Your task to perform on an android device: Open accessibility settings Image 0: 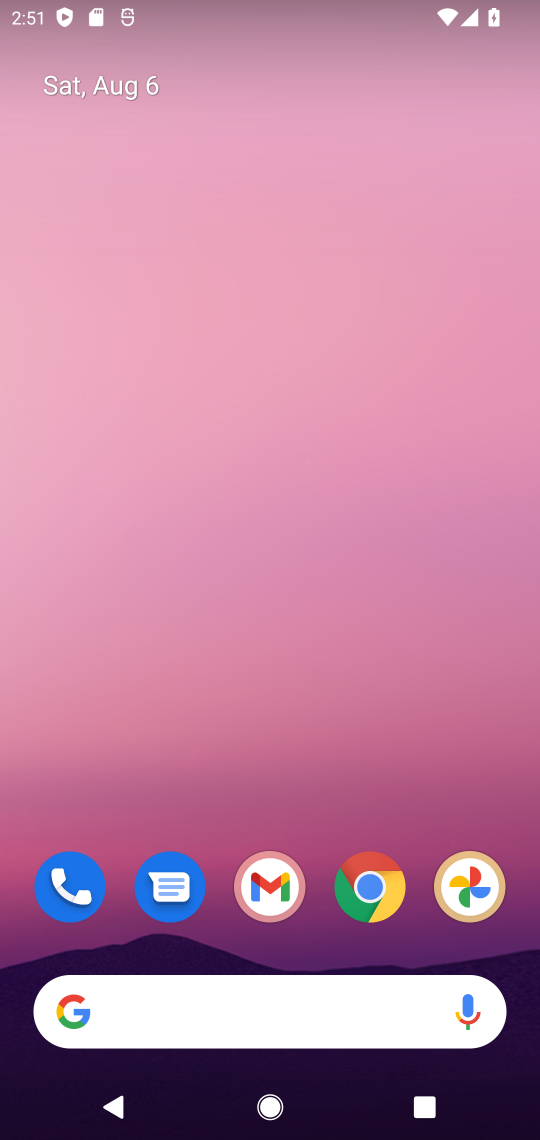
Step 0: drag from (353, 784) to (347, 271)
Your task to perform on an android device: Open accessibility settings Image 1: 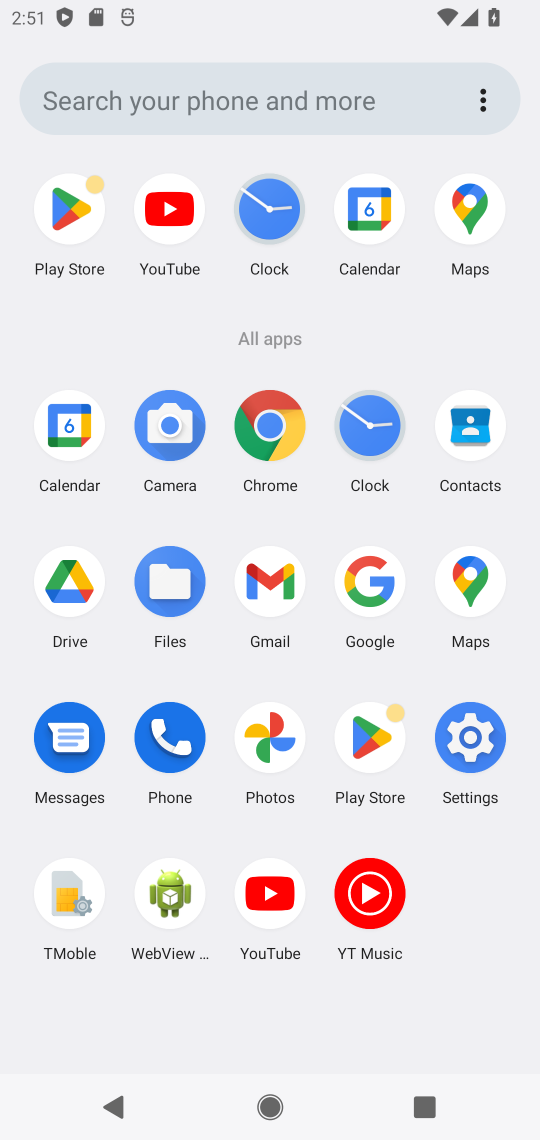
Step 1: click (470, 741)
Your task to perform on an android device: Open accessibility settings Image 2: 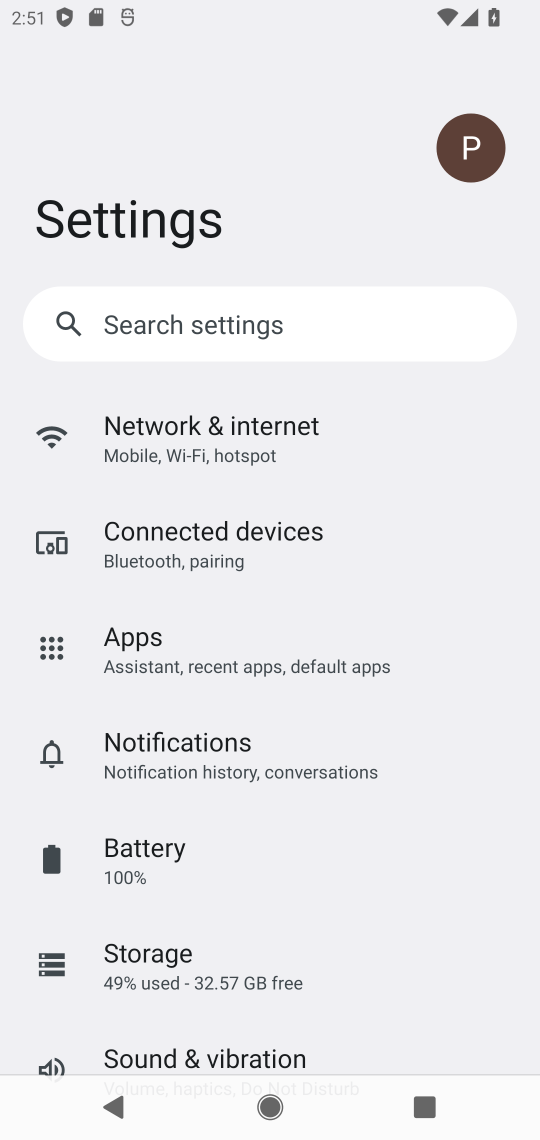
Step 2: drag from (466, 856) to (466, 719)
Your task to perform on an android device: Open accessibility settings Image 3: 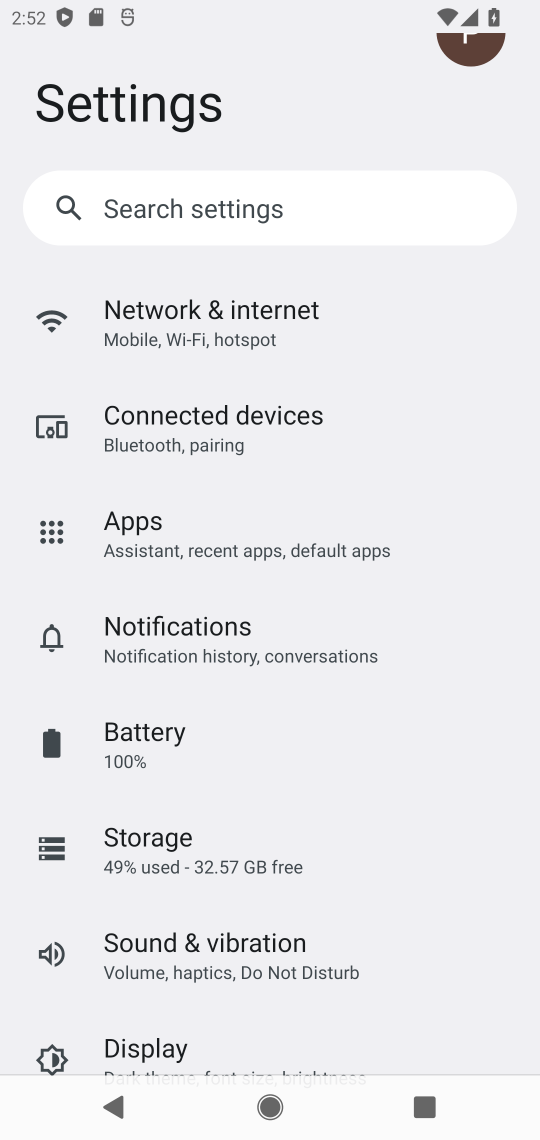
Step 3: drag from (468, 849) to (454, 726)
Your task to perform on an android device: Open accessibility settings Image 4: 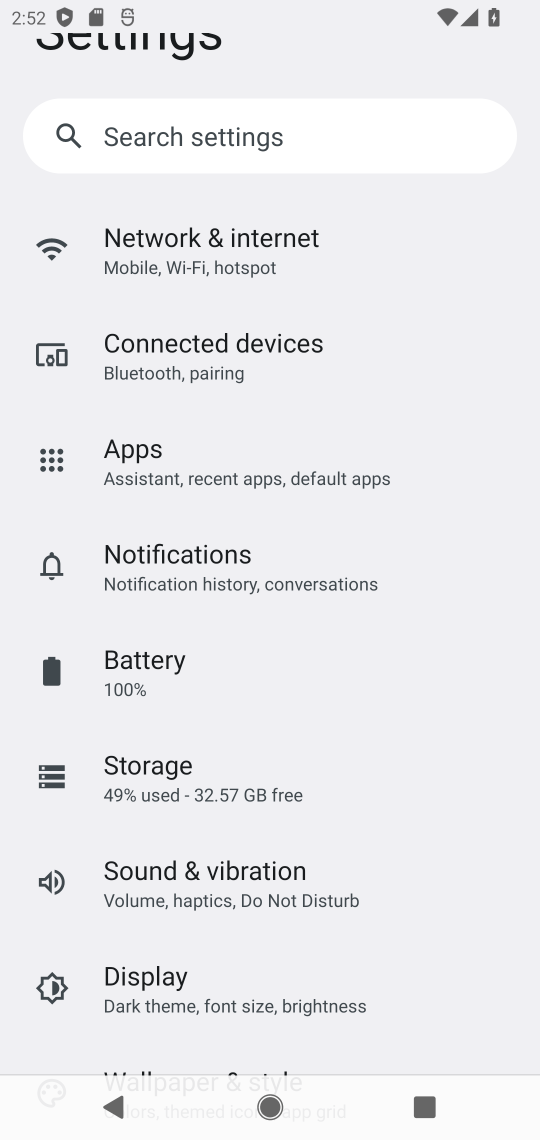
Step 4: drag from (448, 888) to (442, 750)
Your task to perform on an android device: Open accessibility settings Image 5: 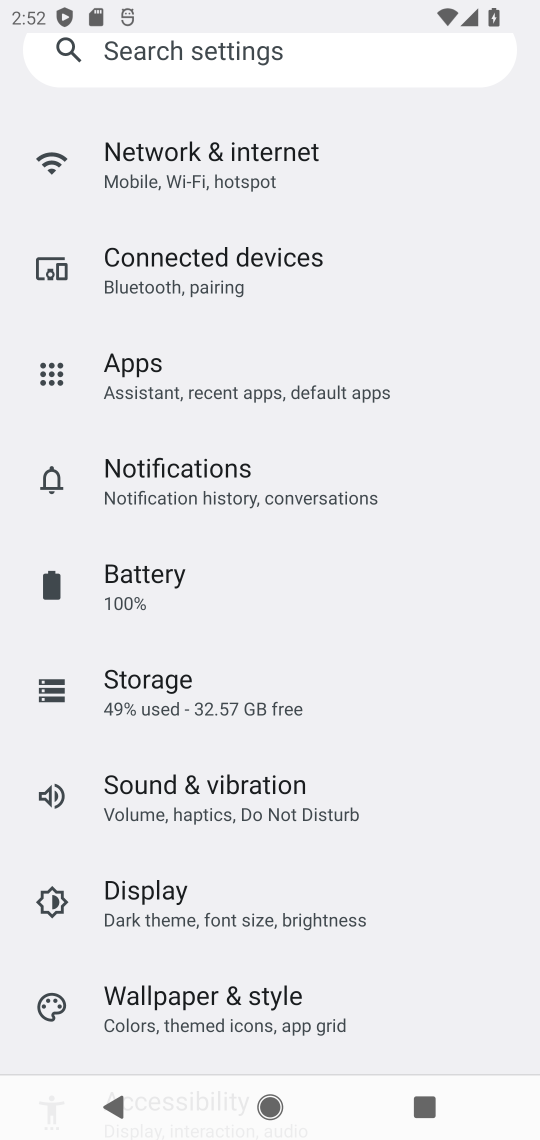
Step 5: drag from (455, 884) to (452, 735)
Your task to perform on an android device: Open accessibility settings Image 6: 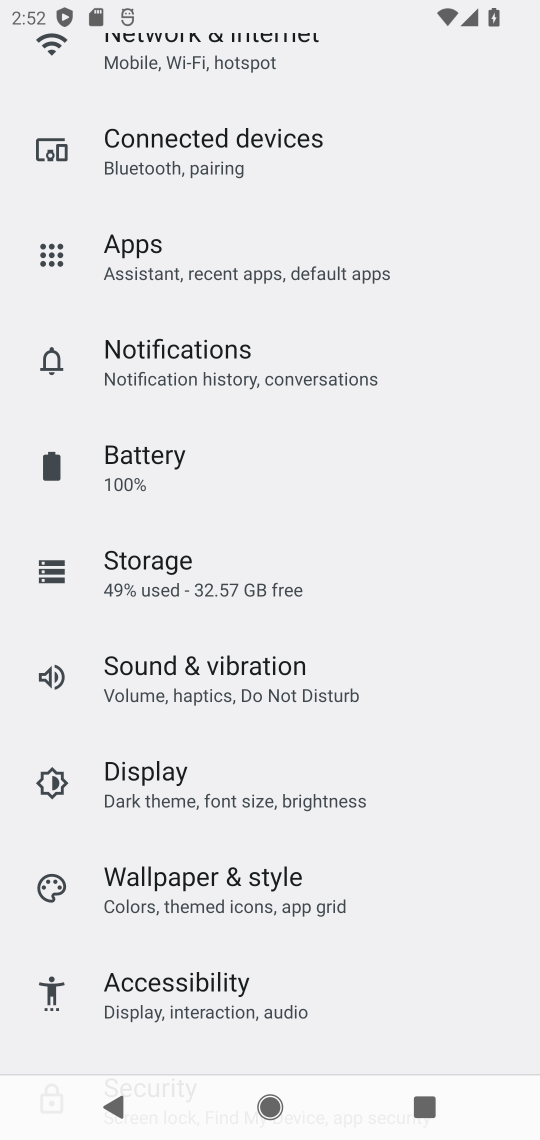
Step 6: drag from (461, 902) to (464, 751)
Your task to perform on an android device: Open accessibility settings Image 7: 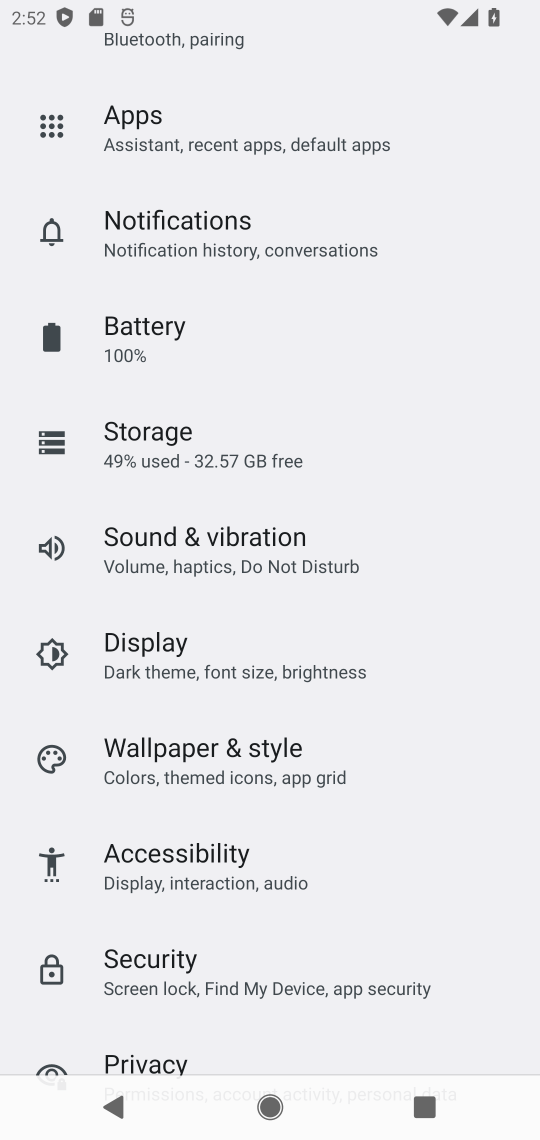
Step 7: drag from (462, 897) to (464, 704)
Your task to perform on an android device: Open accessibility settings Image 8: 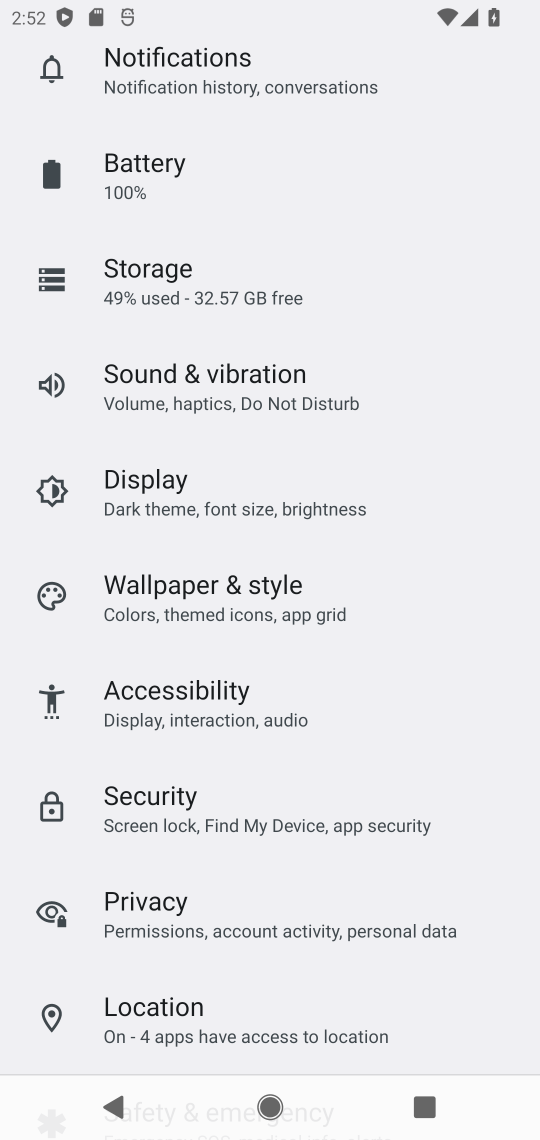
Step 8: drag from (482, 882) to (500, 639)
Your task to perform on an android device: Open accessibility settings Image 9: 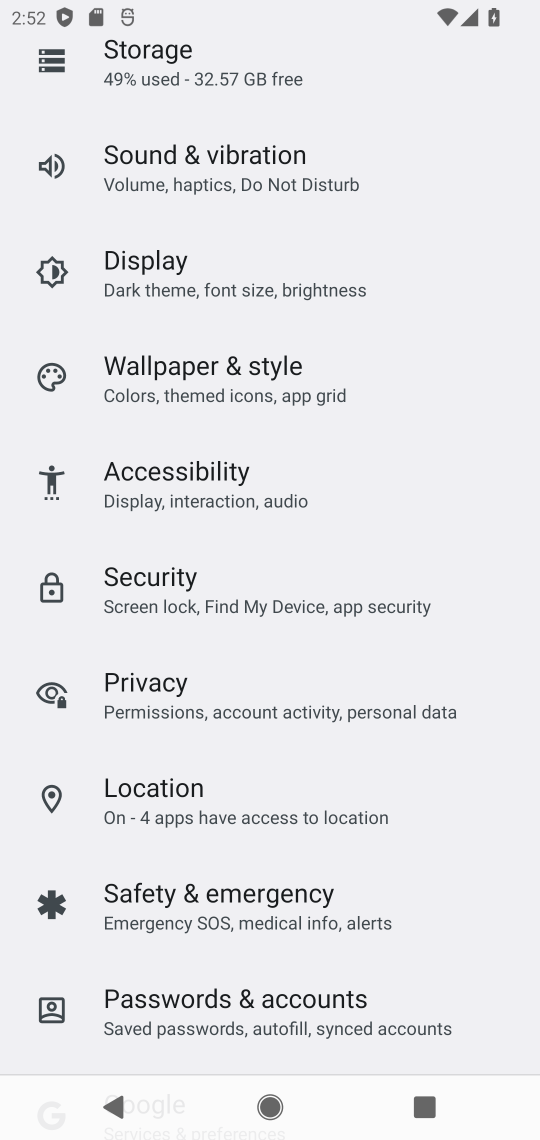
Step 9: drag from (500, 887) to (502, 650)
Your task to perform on an android device: Open accessibility settings Image 10: 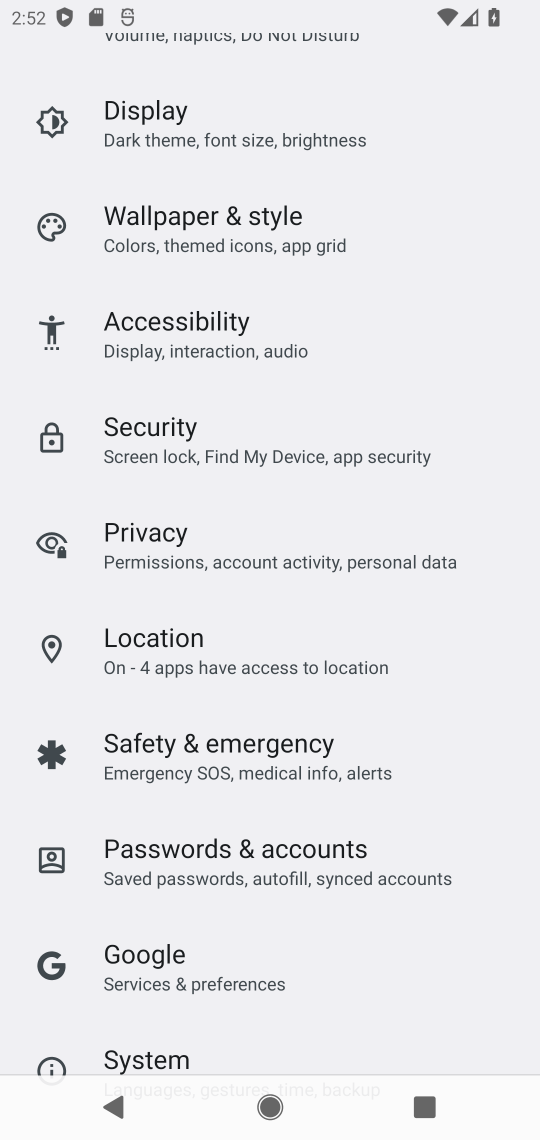
Step 10: drag from (483, 851) to (467, 606)
Your task to perform on an android device: Open accessibility settings Image 11: 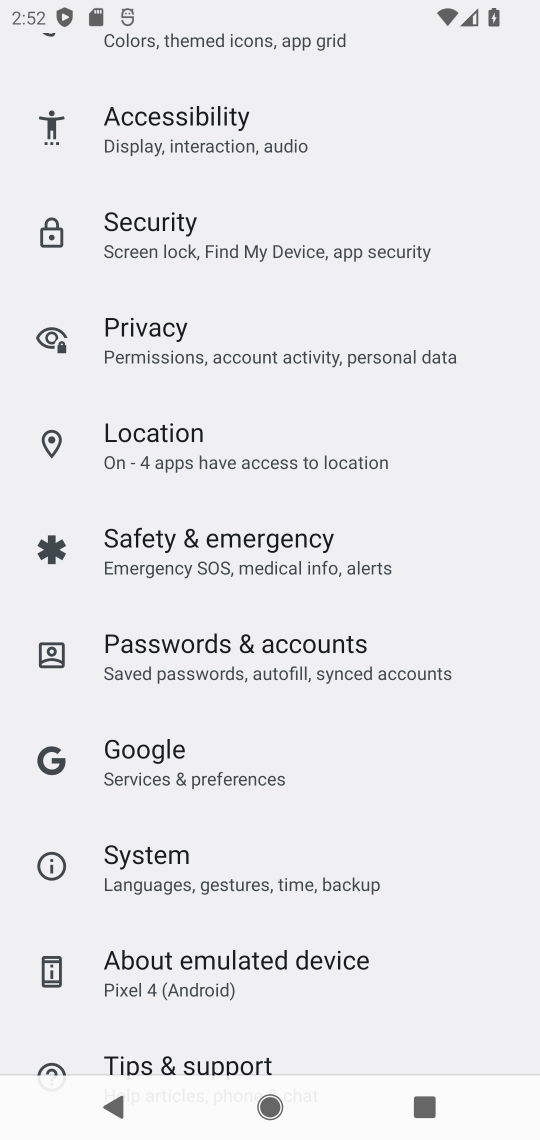
Step 11: drag from (477, 393) to (474, 555)
Your task to perform on an android device: Open accessibility settings Image 12: 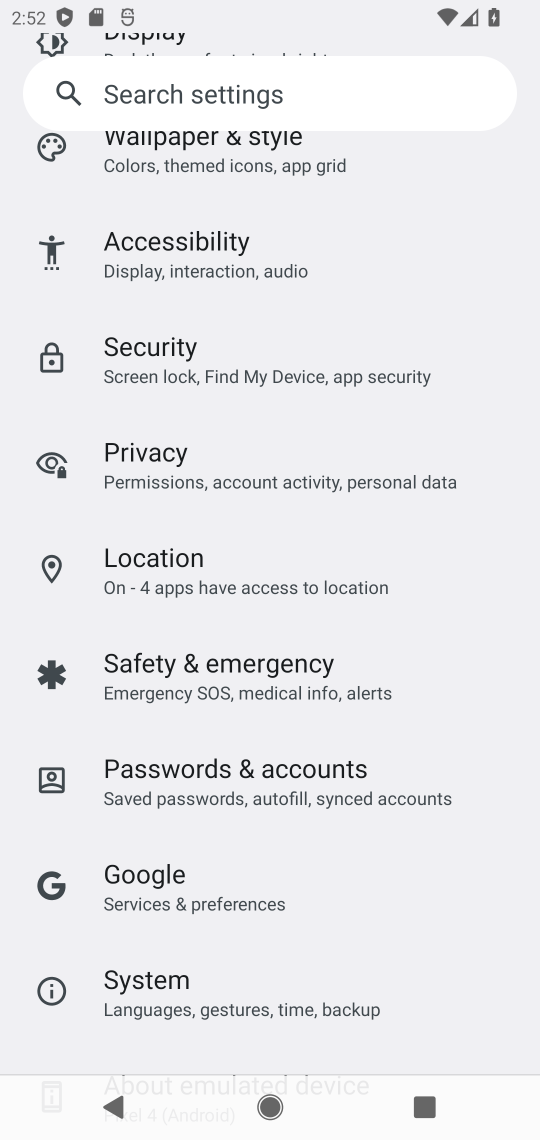
Step 12: drag from (486, 364) to (482, 557)
Your task to perform on an android device: Open accessibility settings Image 13: 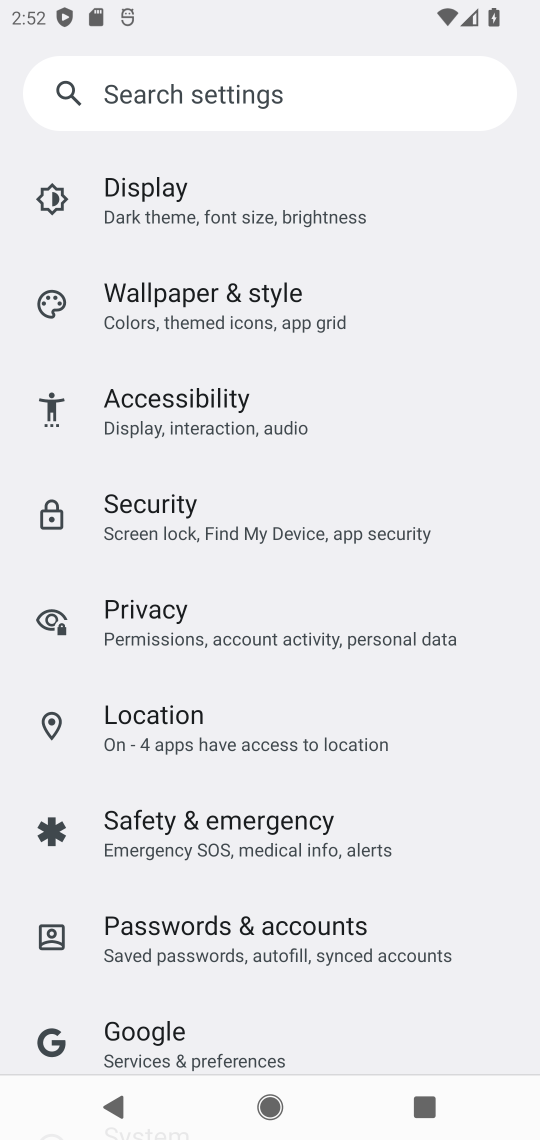
Step 13: click (410, 387)
Your task to perform on an android device: Open accessibility settings Image 14: 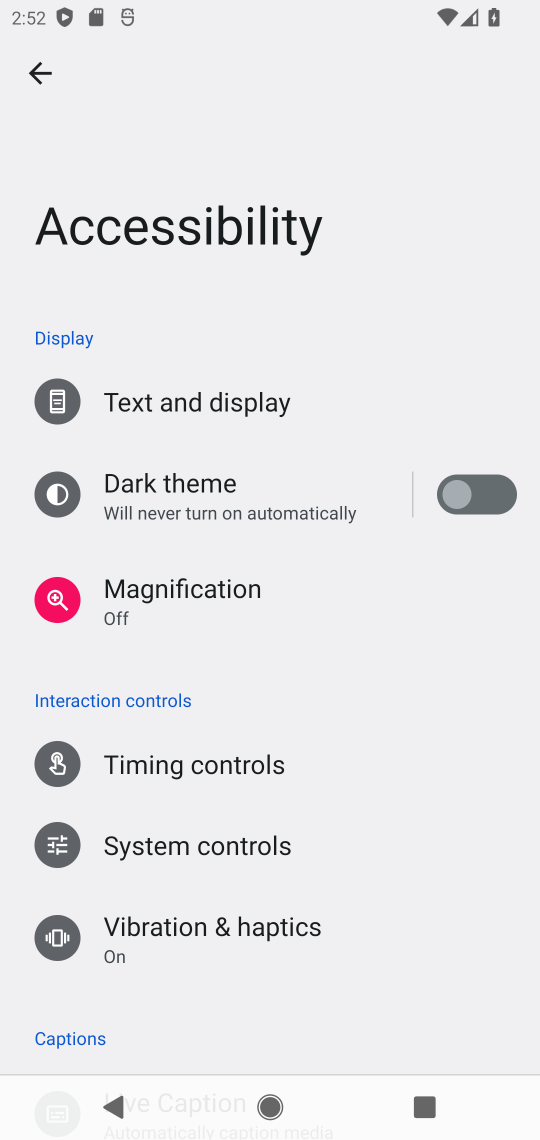
Step 14: task complete